Your task to perform on an android device: Open battery settings Image 0: 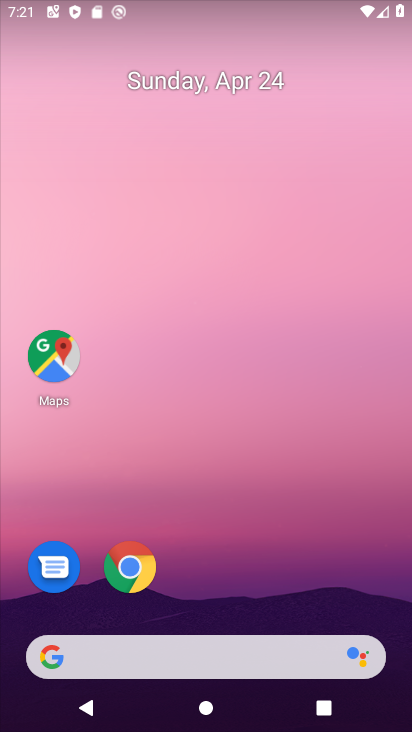
Step 0: drag from (313, 431) to (285, 31)
Your task to perform on an android device: Open battery settings Image 1: 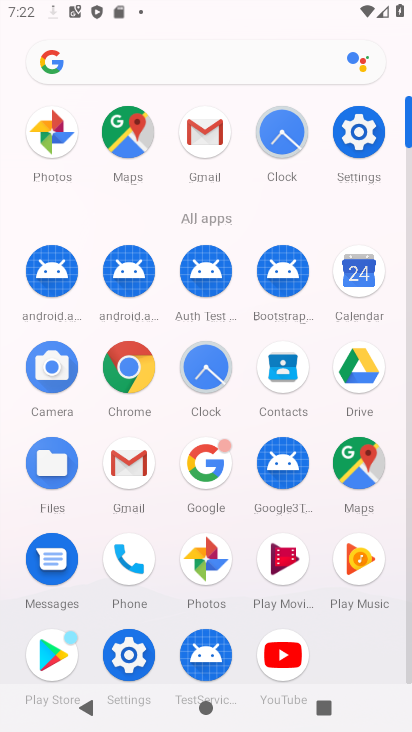
Step 1: click (360, 136)
Your task to perform on an android device: Open battery settings Image 2: 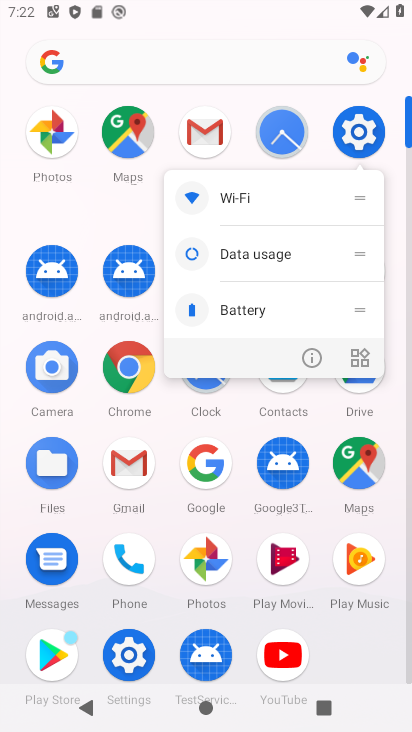
Step 2: click (360, 136)
Your task to perform on an android device: Open battery settings Image 3: 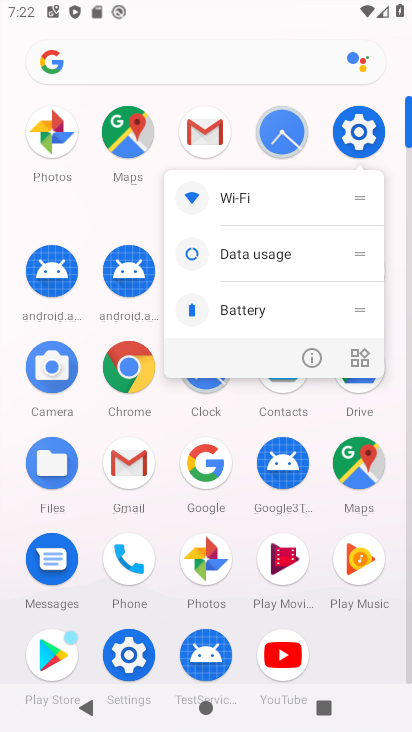
Step 3: click (360, 136)
Your task to perform on an android device: Open battery settings Image 4: 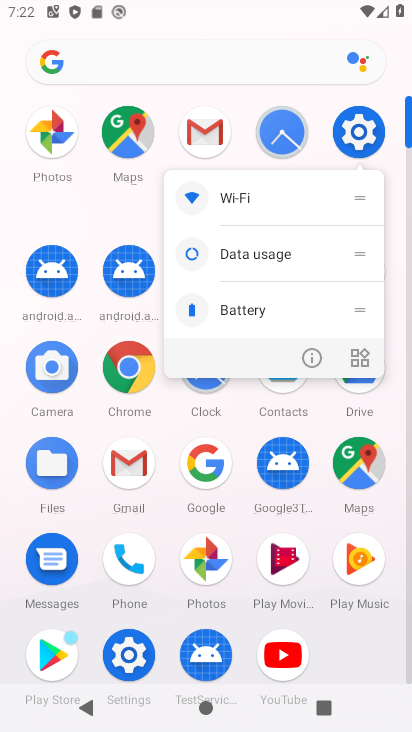
Step 4: click (360, 136)
Your task to perform on an android device: Open battery settings Image 5: 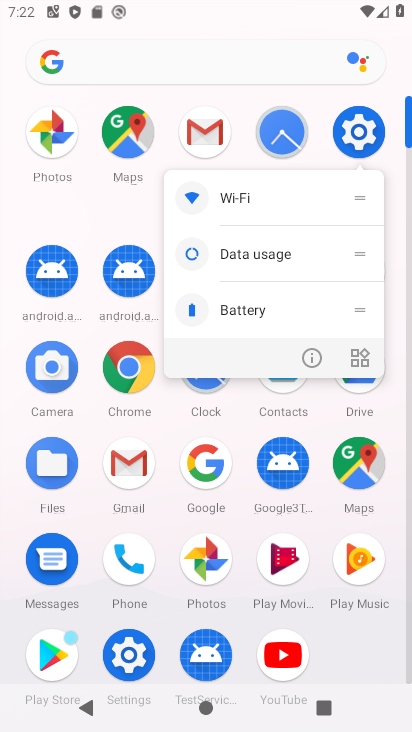
Step 5: click (360, 136)
Your task to perform on an android device: Open battery settings Image 6: 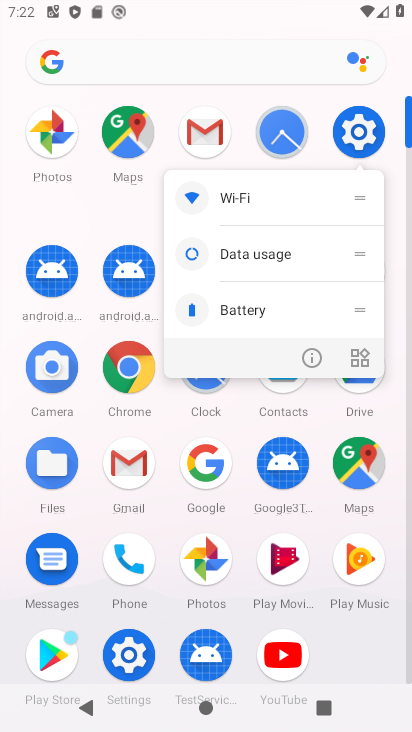
Step 6: click (360, 136)
Your task to perform on an android device: Open battery settings Image 7: 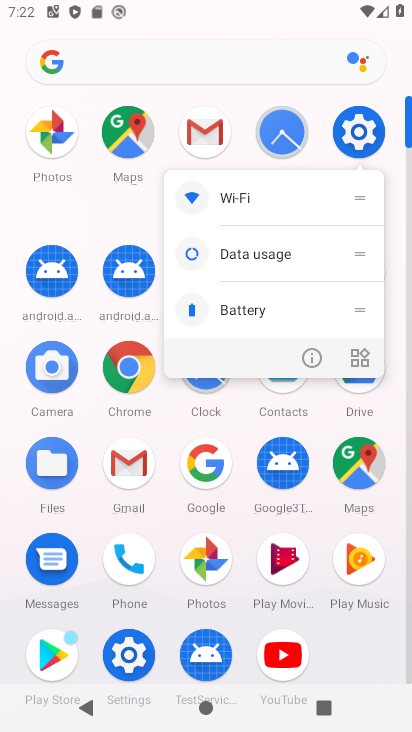
Step 7: click (360, 136)
Your task to perform on an android device: Open battery settings Image 8: 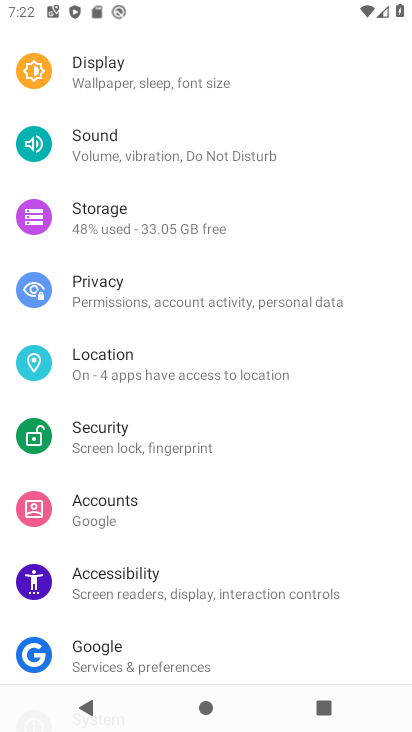
Step 8: click (360, 136)
Your task to perform on an android device: Open battery settings Image 9: 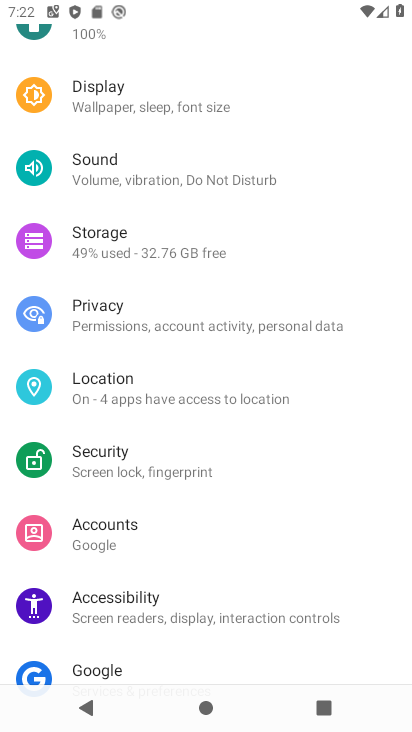
Step 9: drag from (207, 520) to (191, 140)
Your task to perform on an android device: Open battery settings Image 10: 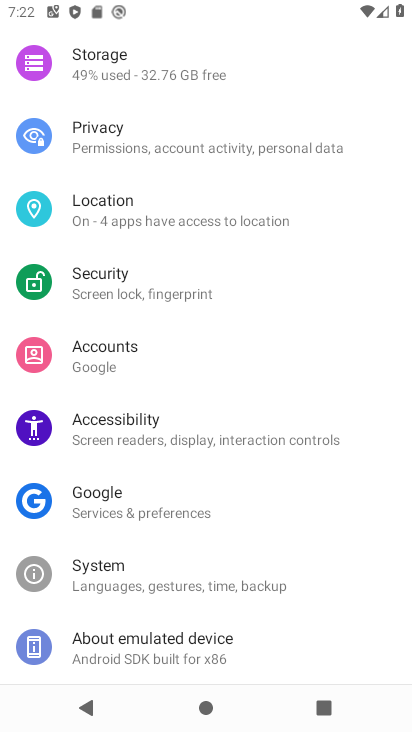
Step 10: drag from (237, 186) to (284, 480)
Your task to perform on an android device: Open battery settings Image 11: 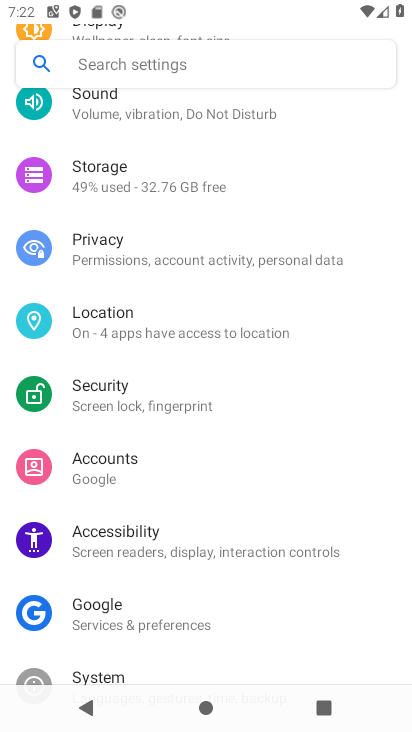
Step 11: drag from (368, 214) to (374, 553)
Your task to perform on an android device: Open battery settings Image 12: 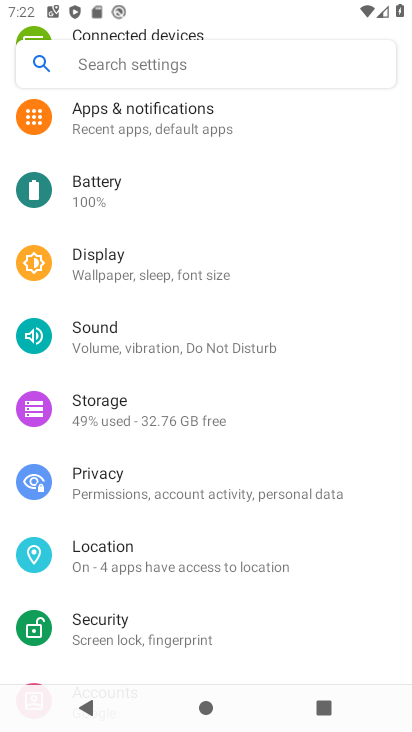
Step 12: drag from (241, 209) to (315, 576)
Your task to perform on an android device: Open battery settings Image 13: 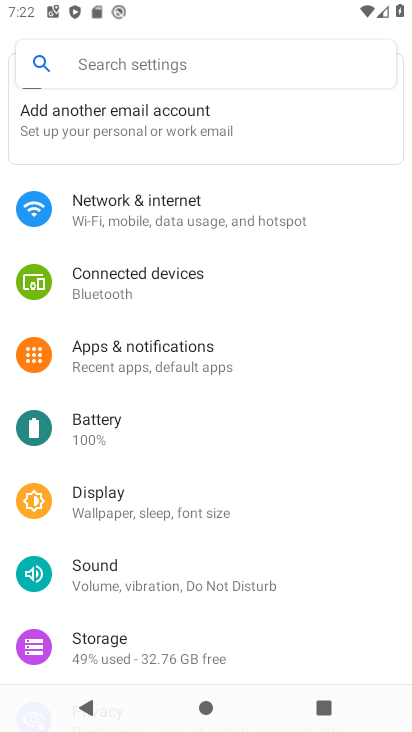
Step 13: drag from (200, 334) to (265, 577)
Your task to perform on an android device: Open battery settings Image 14: 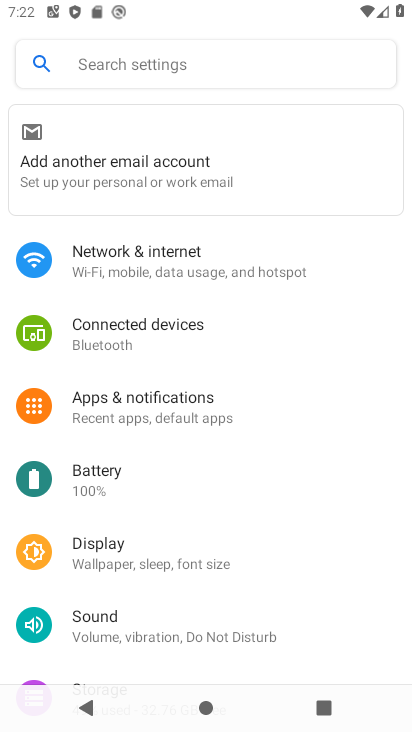
Step 14: click (108, 481)
Your task to perform on an android device: Open battery settings Image 15: 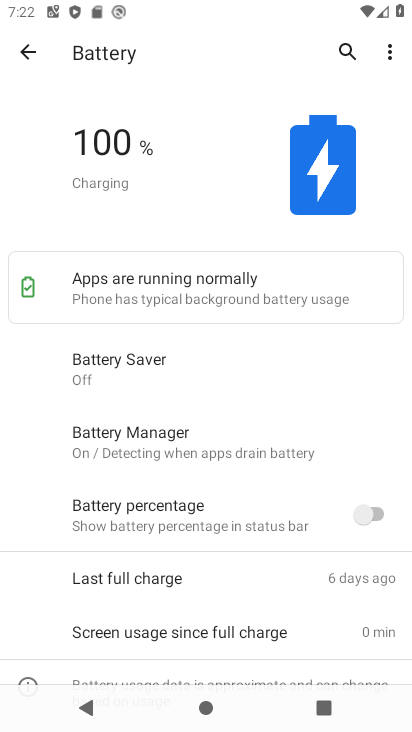
Step 15: task complete